Your task to perform on an android device: turn off airplane mode Image 0: 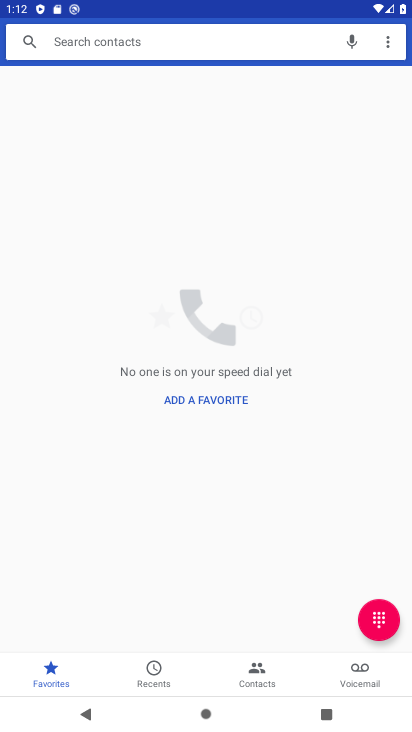
Step 0: press home button
Your task to perform on an android device: turn off airplane mode Image 1: 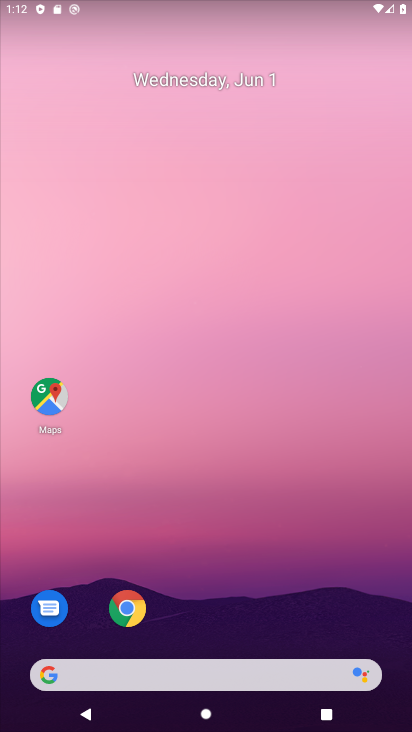
Step 1: drag from (214, 622) to (201, 243)
Your task to perform on an android device: turn off airplane mode Image 2: 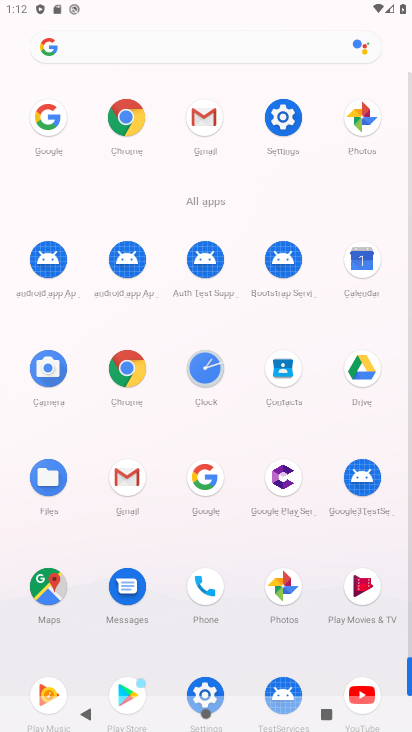
Step 2: click (279, 124)
Your task to perform on an android device: turn off airplane mode Image 3: 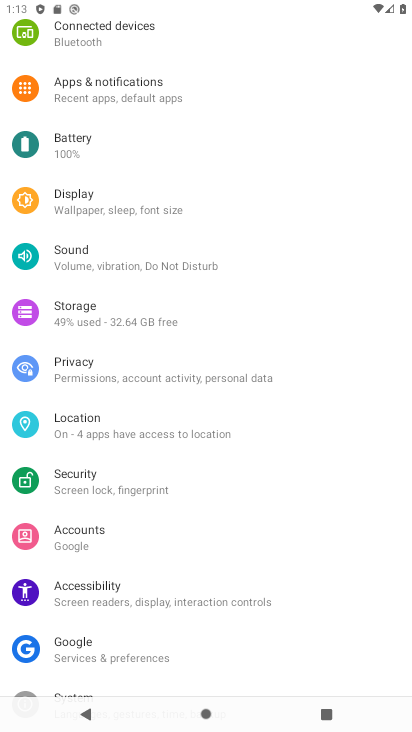
Step 3: drag from (157, 141) to (133, 564)
Your task to perform on an android device: turn off airplane mode Image 4: 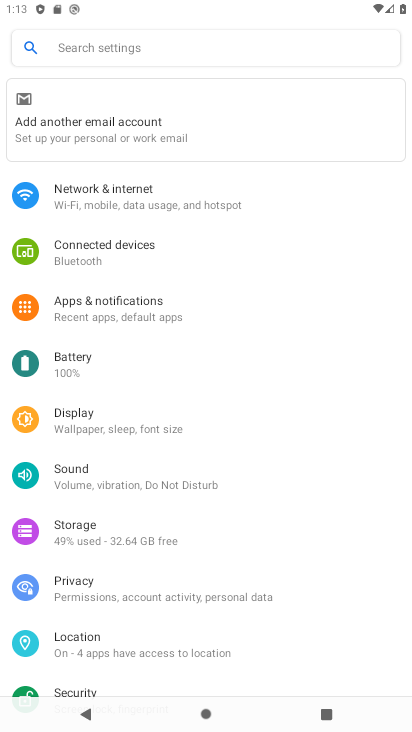
Step 4: click (149, 208)
Your task to perform on an android device: turn off airplane mode Image 5: 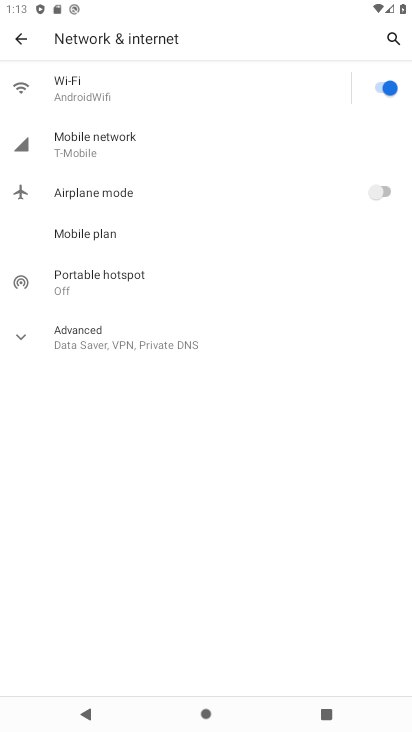
Step 5: task complete